Your task to perform on an android device: turn vacation reply on in the gmail app Image 0: 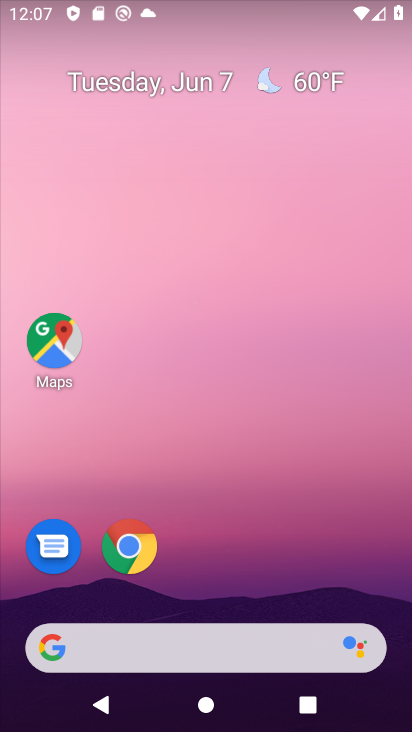
Step 0: drag from (173, 498) to (184, 7)
Your task to perform on an android device: turn vacation reply on in the gmail app Image 1: 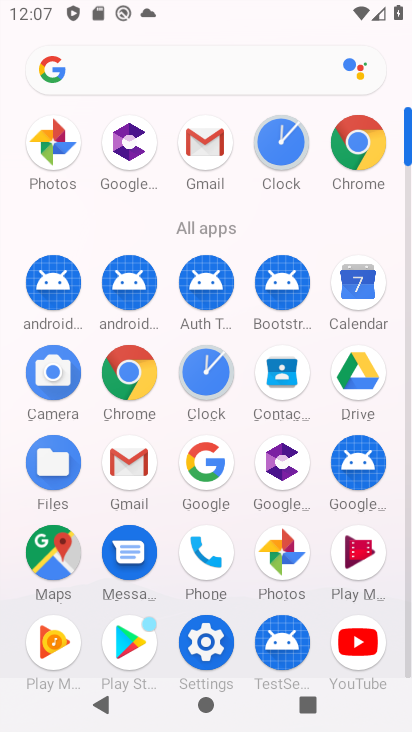
Step 1: click (130, 453)
Your task to perform on an android device: turn vacation reply on in the gmail app Image 2: 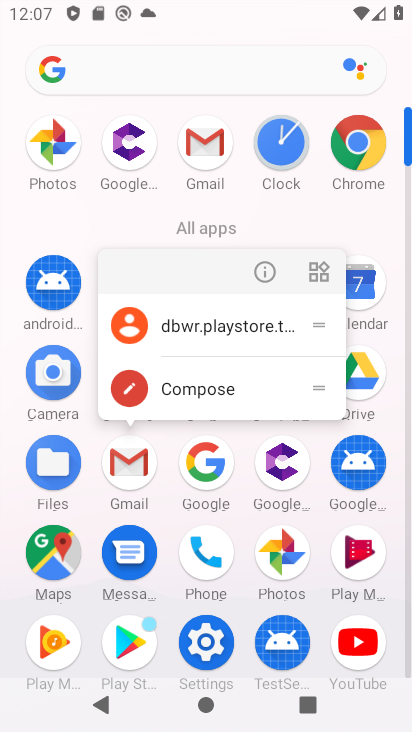
Step 2: click (264, 274)
Your task to perform on an android device: turn vacation reply on in the gmail app Image 3: 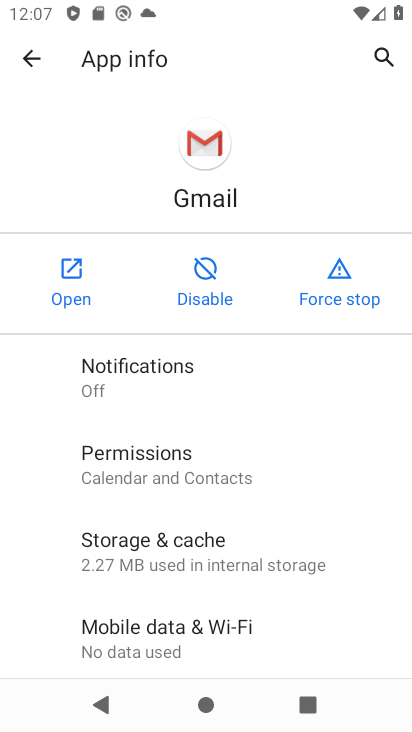
Step 3: click (76, 270)
Your task to perform on an android device: turn vacation reply on in the gmail app Image 4: 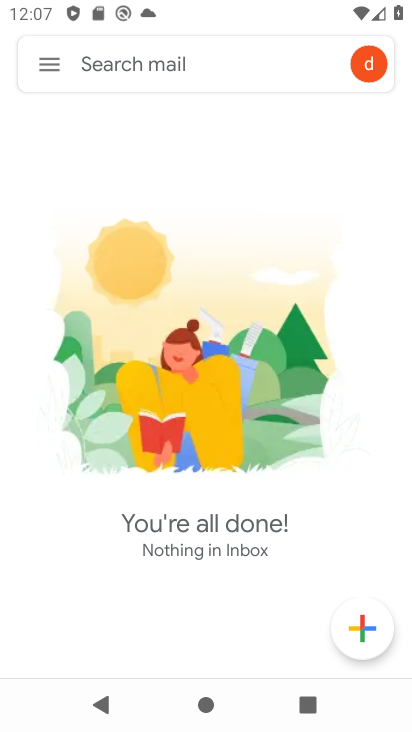
Step 4: click (61, 51)
Your task to perform on an android device: turn vacation reply on in the gmail app Image 5: 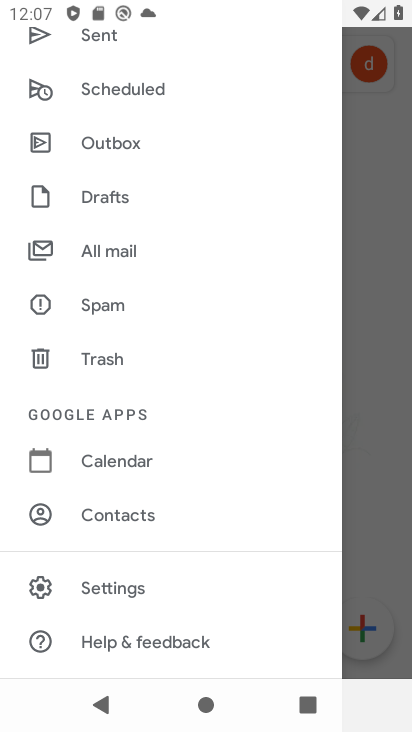
Step 5: click (160, 599)
Your task to perform on an android device: turn vacation reply on in the gmail app Image 6: 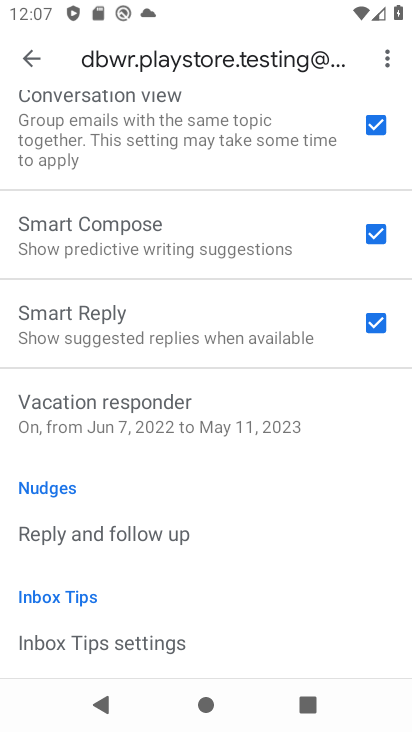
Step 6: click (133, 431)
Your task to perform on an android device: turn vacation reply on in the gmail app Image 7: 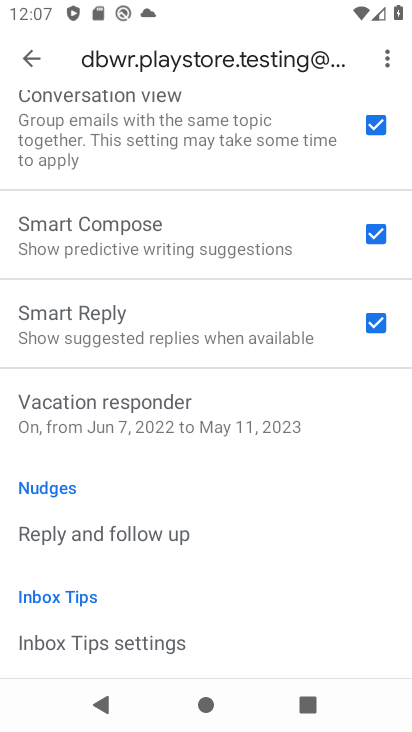
Step 7: click (133, 431)
Your task to perform on an android device: turn vacation reply on in the gmail app Image 8: 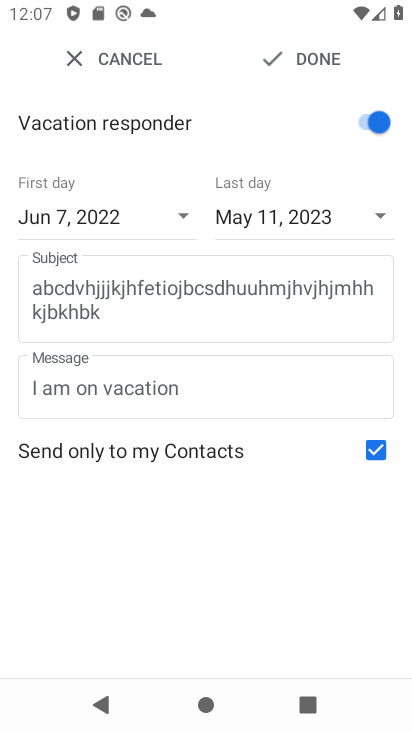
Step 8: click (283, 50)
Your task to perform on an android device: turn vacation reply on in the gmail app Image 9: 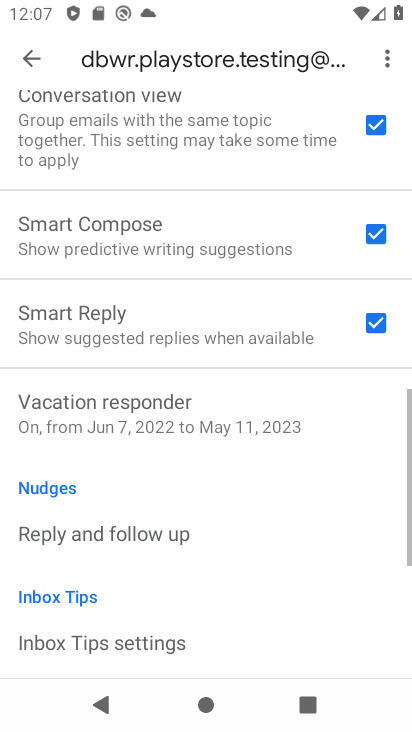
Step 9: task complete